Your task to perform on an android device: empty trash in the gmail app Image 0: 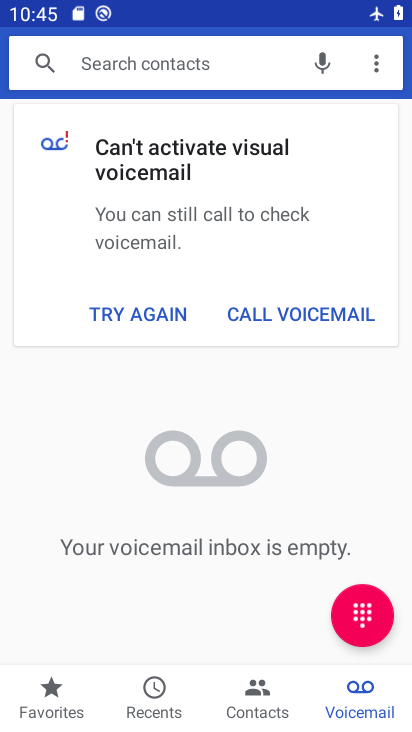
Step 0: press home button
Your task to perform on an android device: empty trash in the gmail app Image 1: 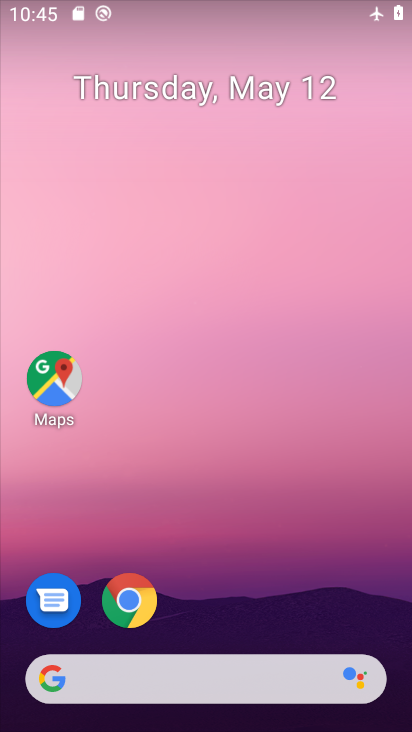
Step 1: drag from (192, 616) to (124, 130)
Your task to perform on an android device: empty trash in the gmail app Image 2: 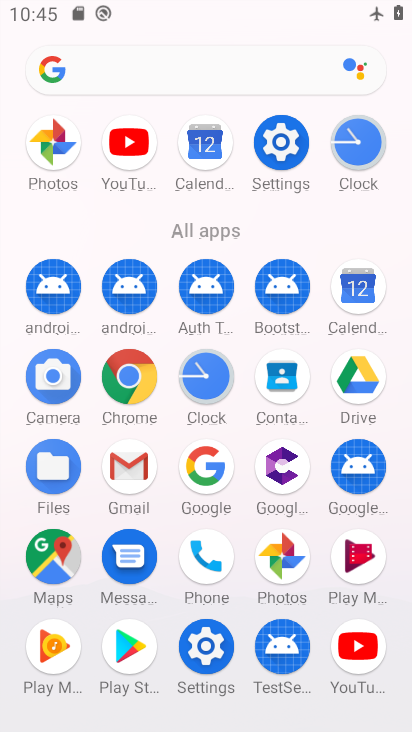
Step 2: click (127, 467)
Your task to perform on an android device: empty trash in the gmail app Image 3: 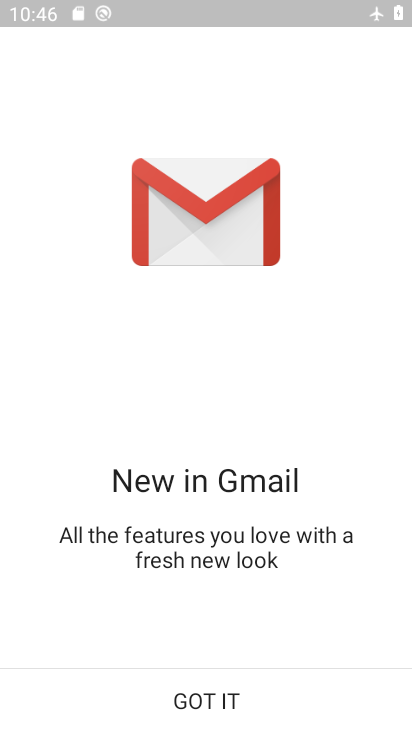
Step 3: click (185, 694)
Your task to perform on an android device: empty trash in the gmail app Image 4: 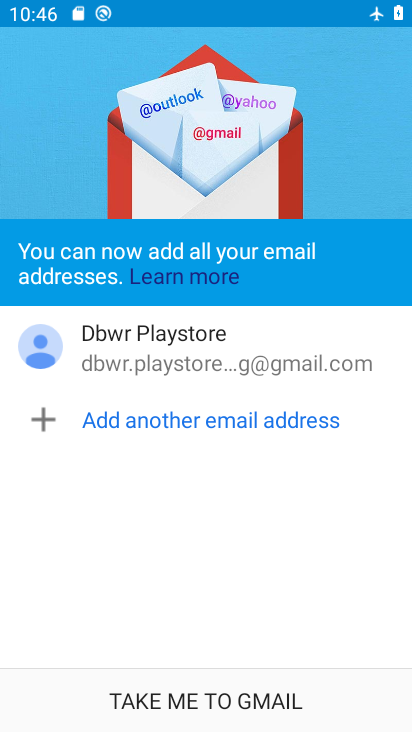
Step 4: click (181, 694)
Your task to perform on an android device: empty trash in the gmail app Image 5: 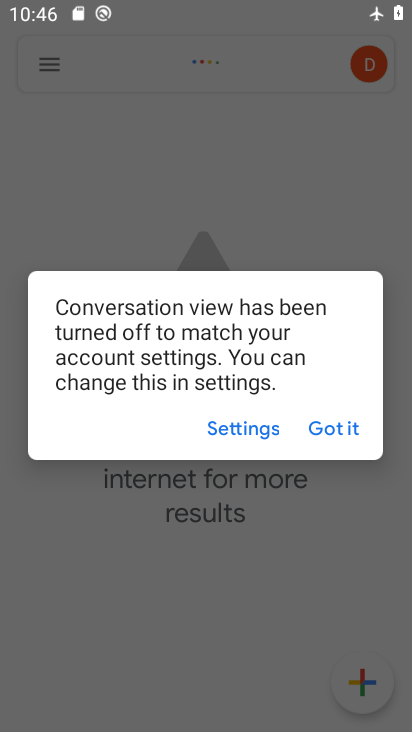
Step 5: click (342, 436)
Your task to perform on an android device: empty trash in the gmail app Image 6: 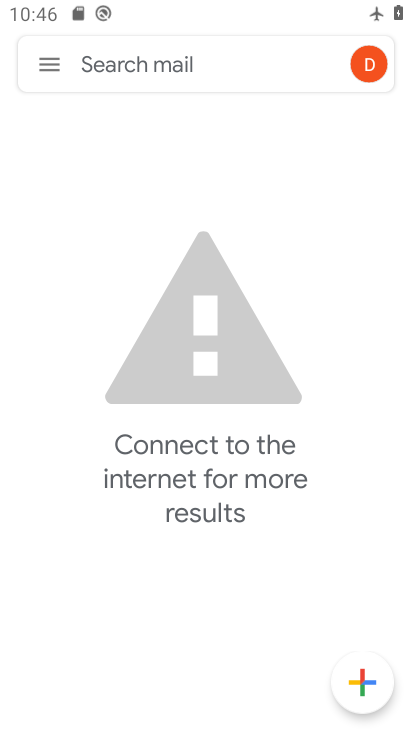
Step 6: click (42, 68)
Your task to perform on an android device: empty trash in the gmail app Image 7: 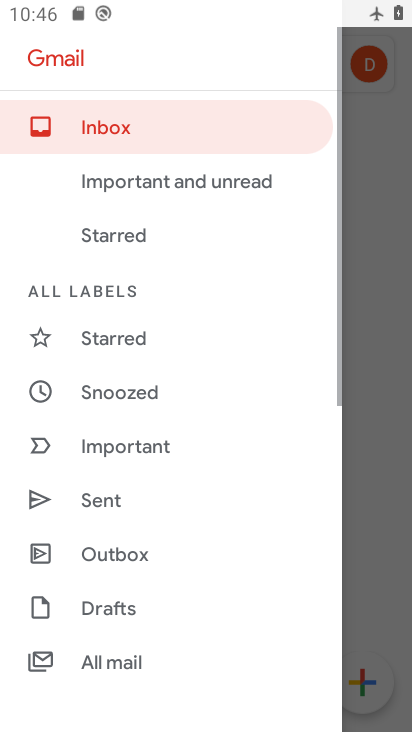
Step 7: drag from (151, 639) to (172, 369)
Your task to perform on an android device: empty trash in the gmail app Image 8: 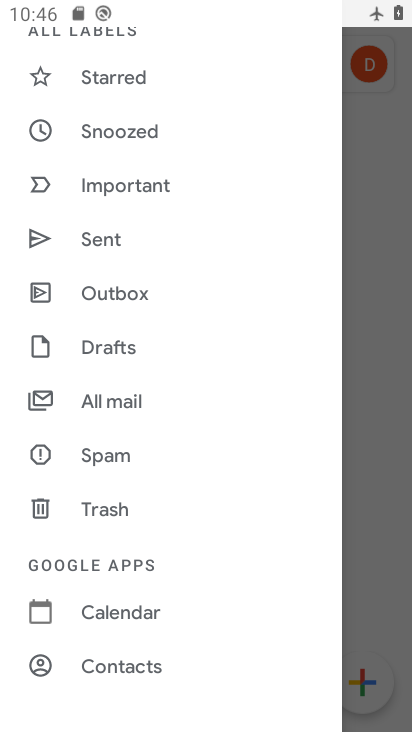
Step 8: click (91, 517)
Your task to perform on an android device: empty trash in the gmail app Image 9: 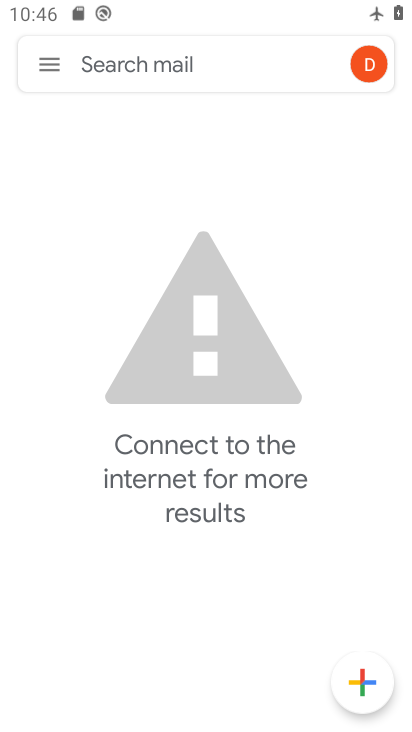
Step 9: task complete